Your task to perform on an android device: open app "NewsBreak: Local News & Alerts" Image 0: 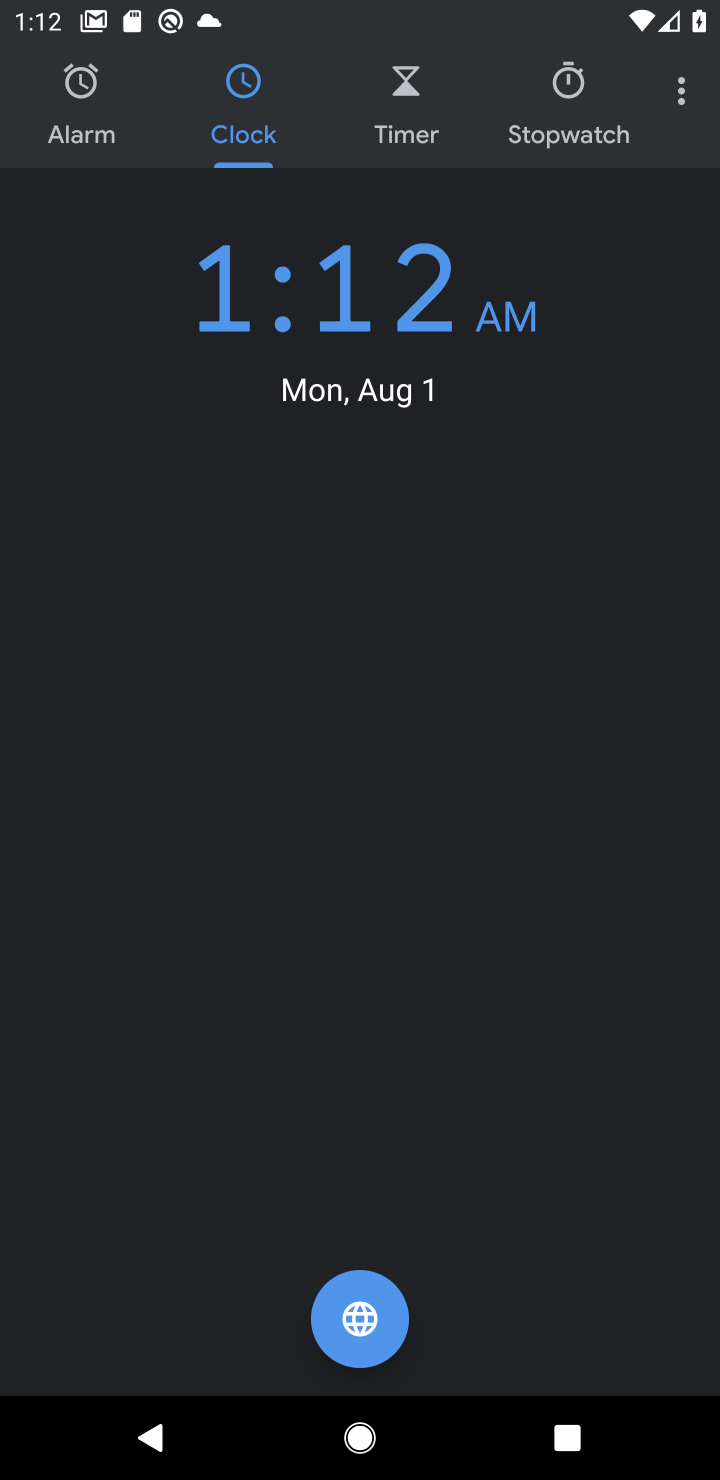
Step 0: press home button
Your task to perform on an android device: open app "NewsBreak: Local News & Alerts" Image 1: 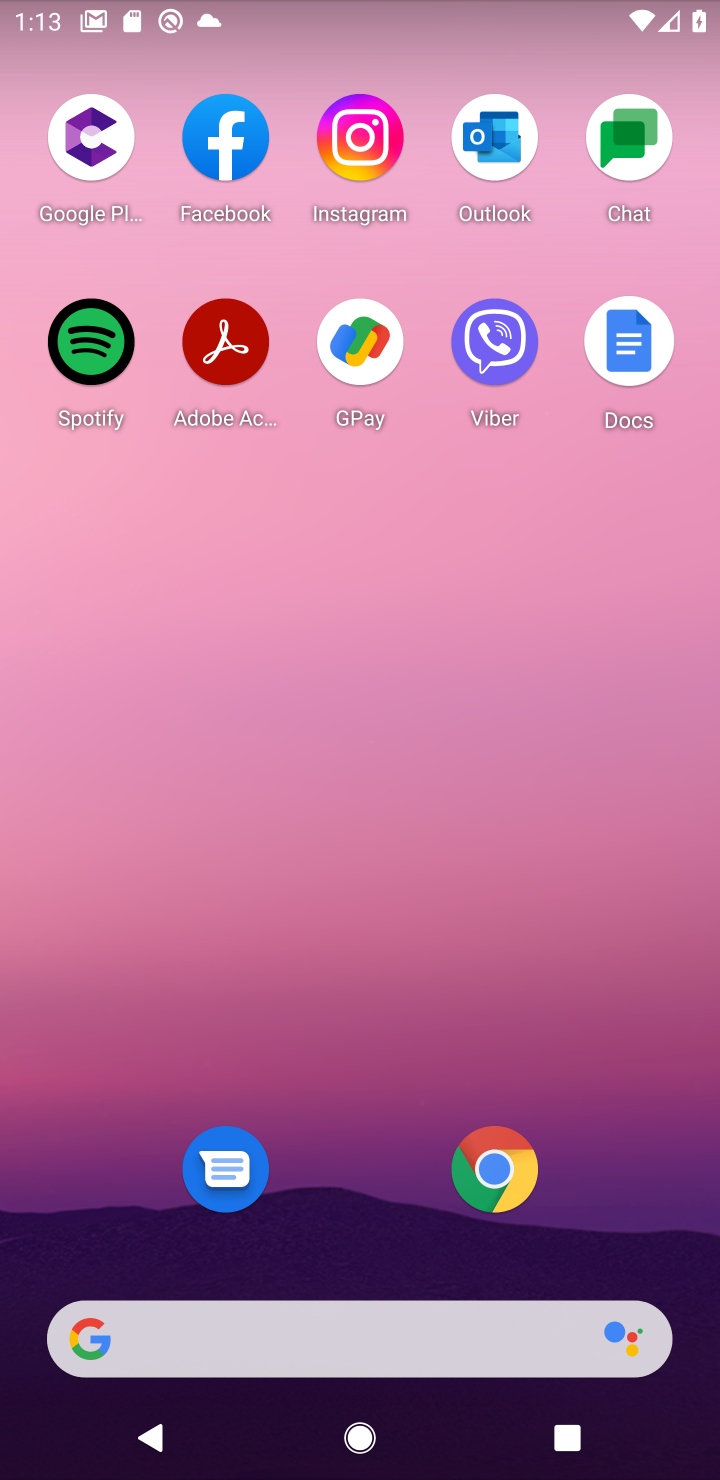
Step 1: drag from (365, 1188) to (514, 224)
Your task to perform on an android device: open app "NewsBreak: Local News & Alerts" Image 2: 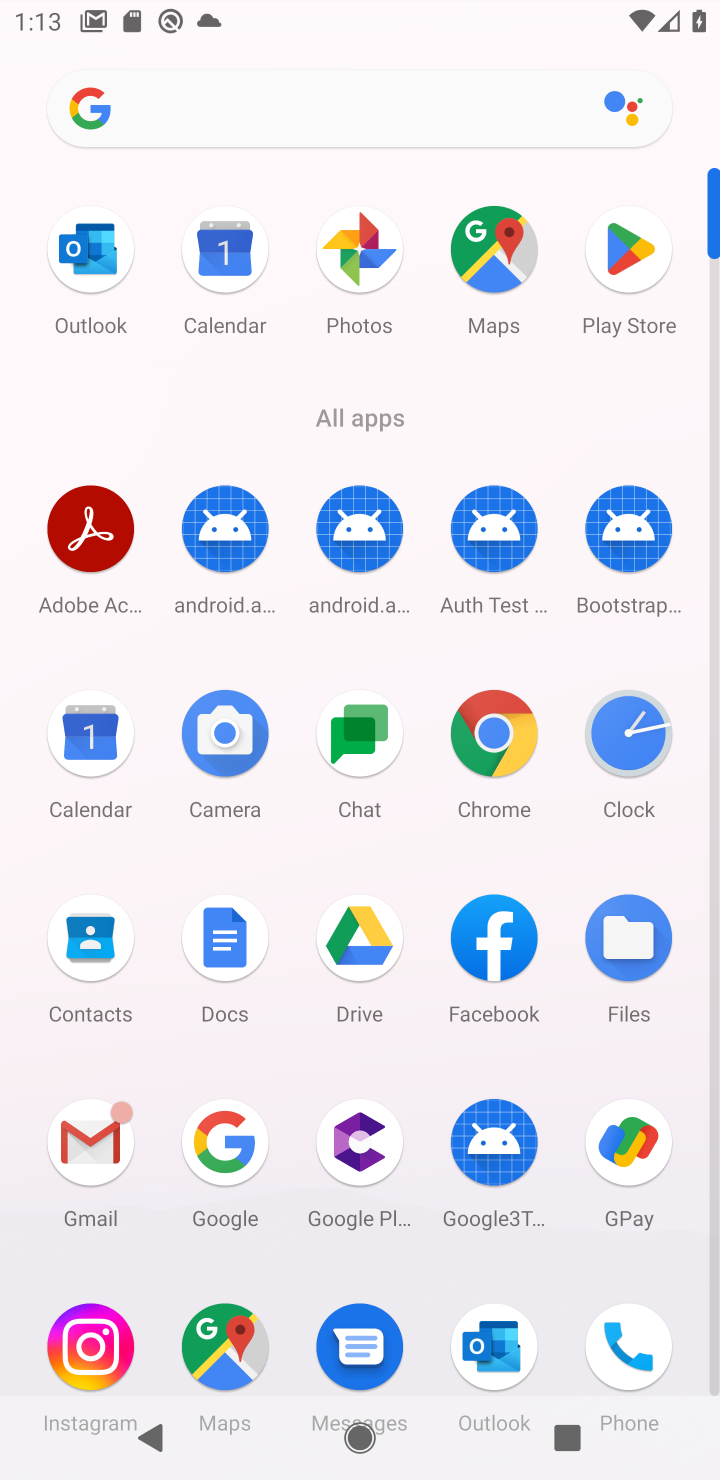
Step 2: click (605, 249)
Your task to perform on an android device: open app "NewsBreak: Local News & Alerts" Image 3: 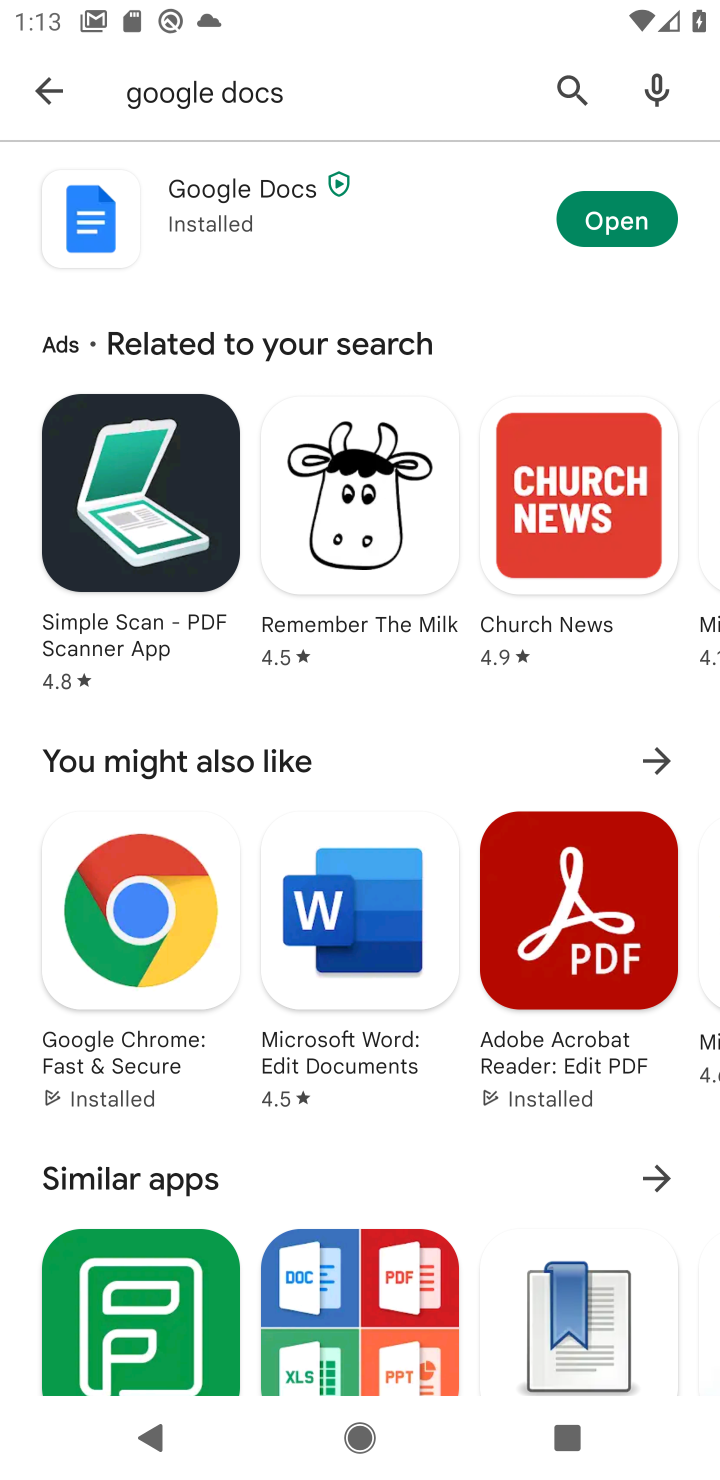
Step 3: click (34, 97)
Your task to perform on an android device: open app "NewsBreak: Local News & Alerts" Image 4: 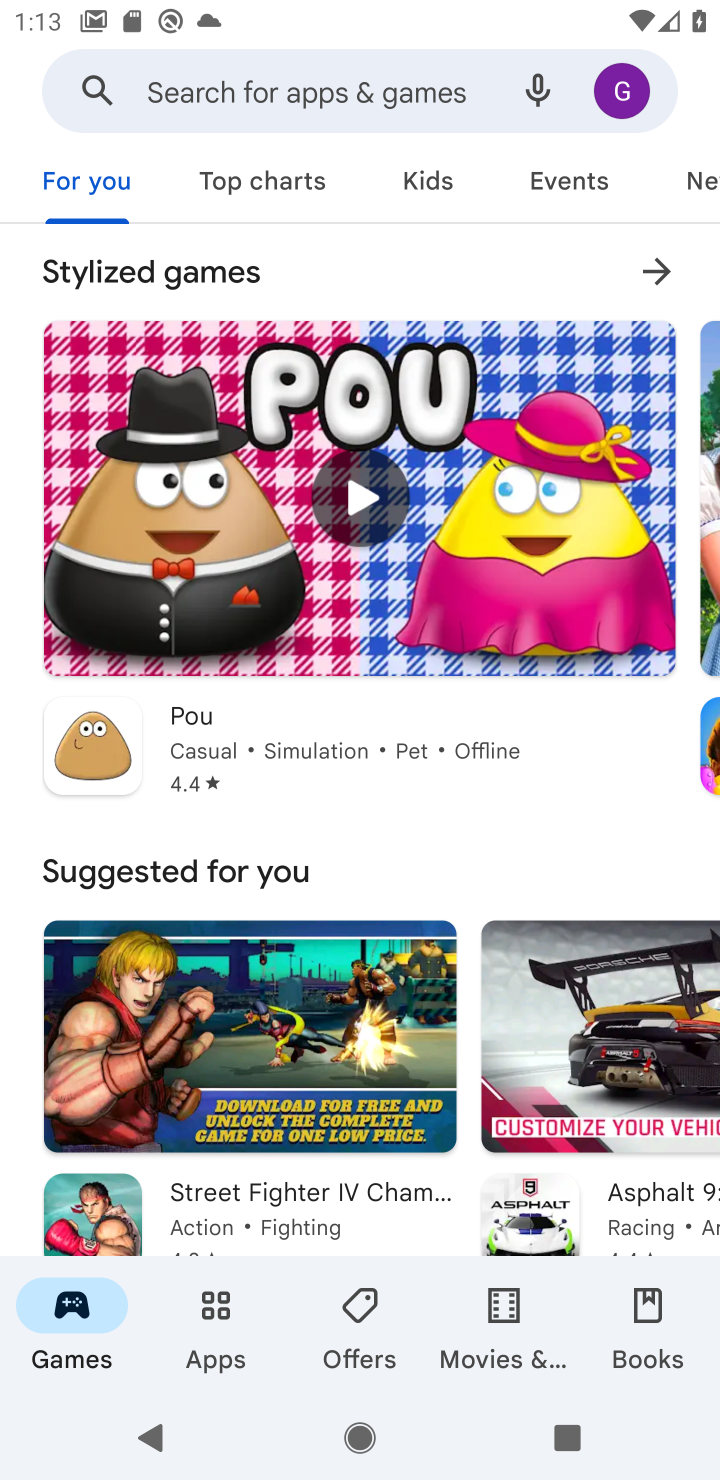
Step 4: click (288, 72)
Your task to perform on an android device: open app "NewsBreak: Local News & Alerts" Image 5: 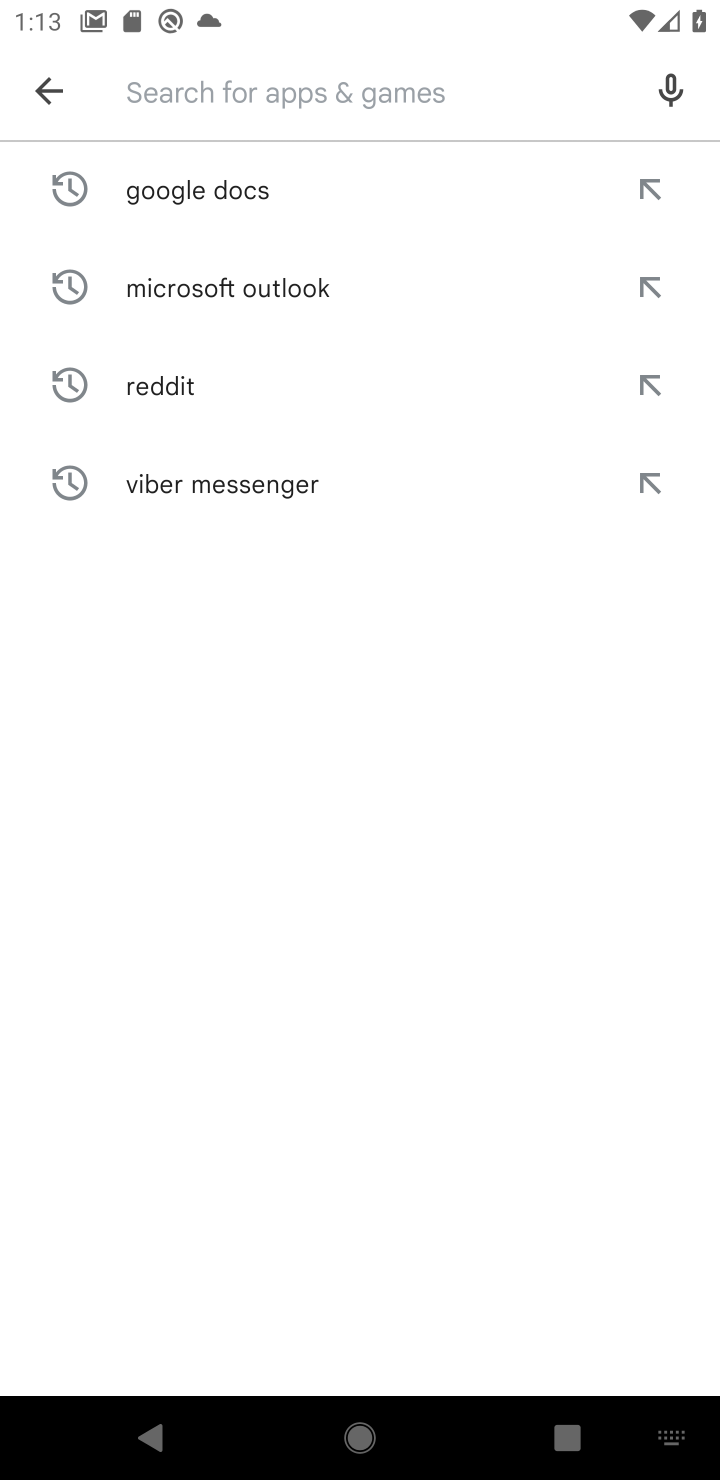
Step 5: type "NewsBreak: Local News & Alerts"
Your task to perform on an android device: open app "NewsBreak: Local News & Alerts" Image 6: 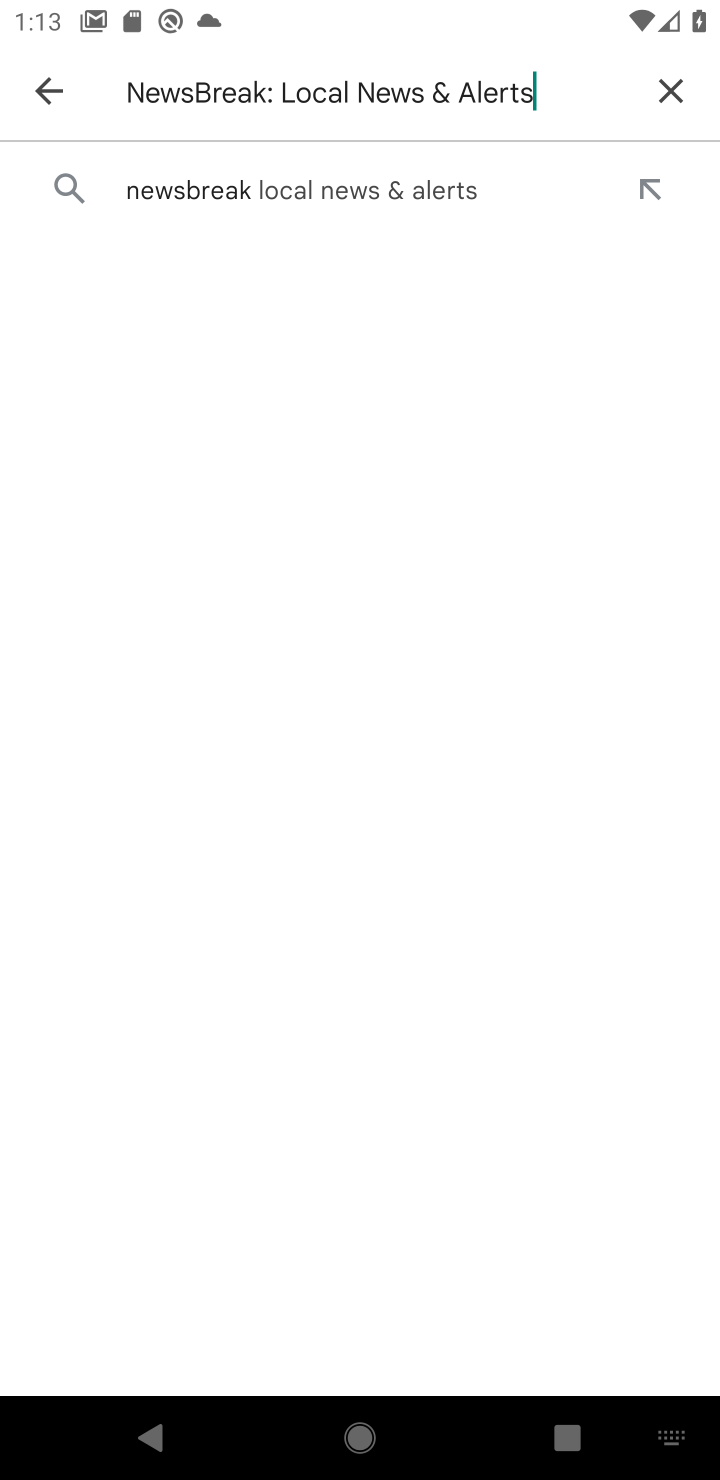
Step 6: click (258, 180)
Your task to perform on an android device: open app "NewsBreak: Local News & Alerts" Image 7: 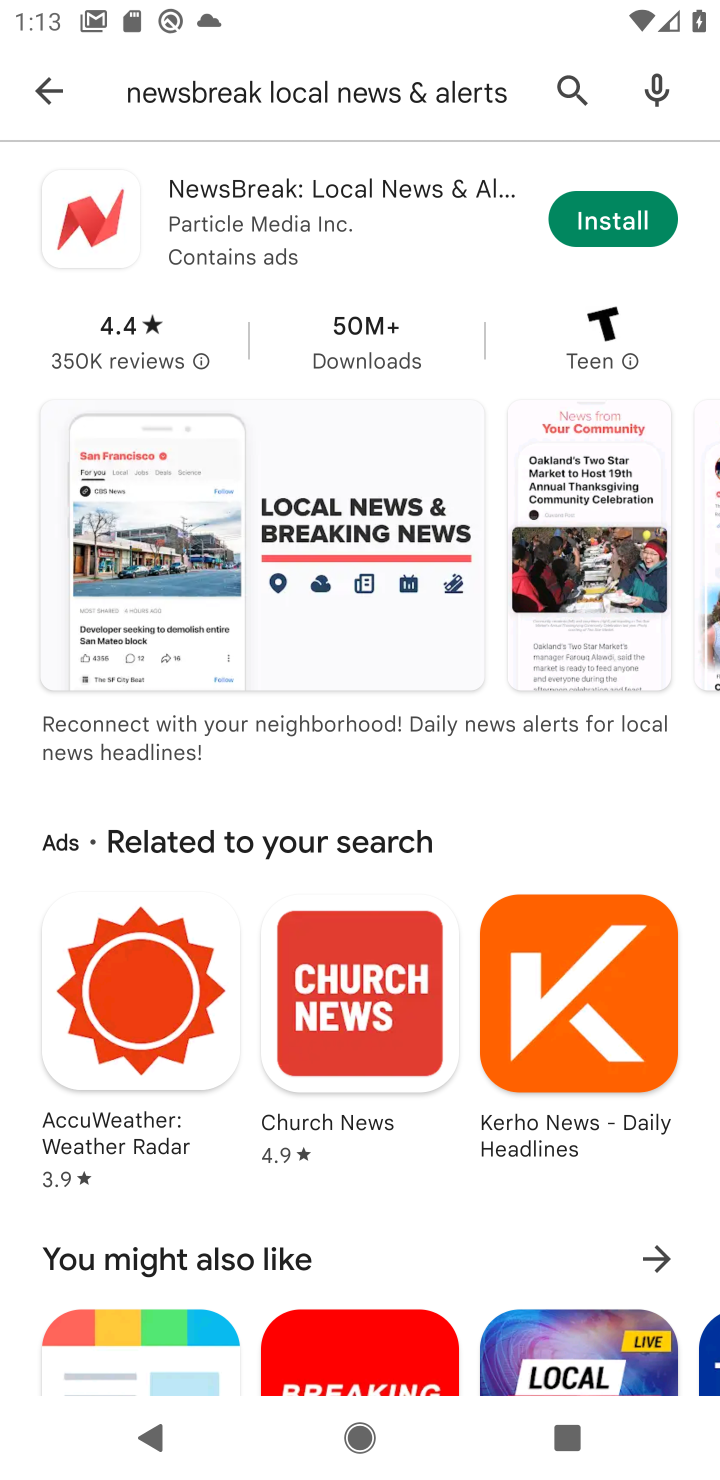
Step 7: click (593, 226)
Your task to perform on an android device: open app "NewsBreak: Local News & Alerts" Image 8: 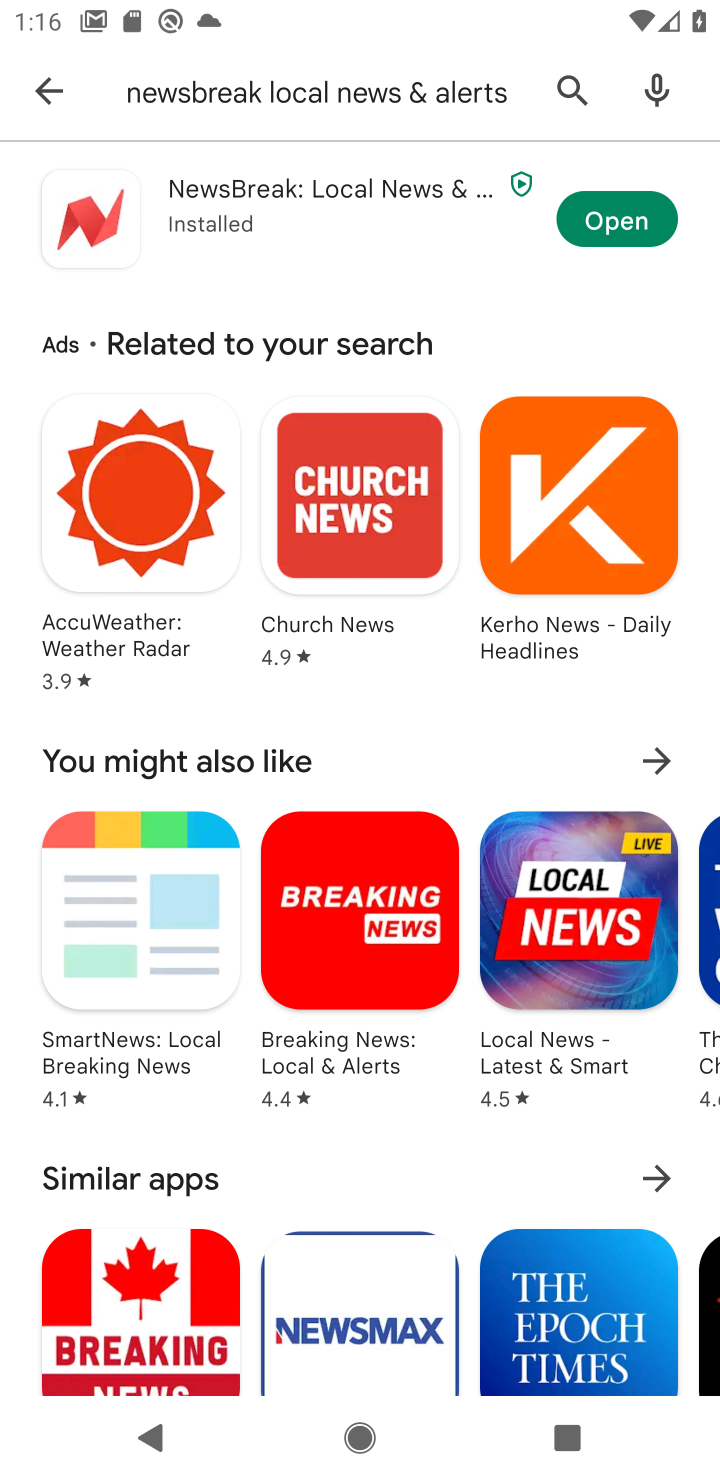
Step 8: click (634, 187)
Your task to perform on an android device: open app "NewsBreak: Local News & Alerts" Image 9: 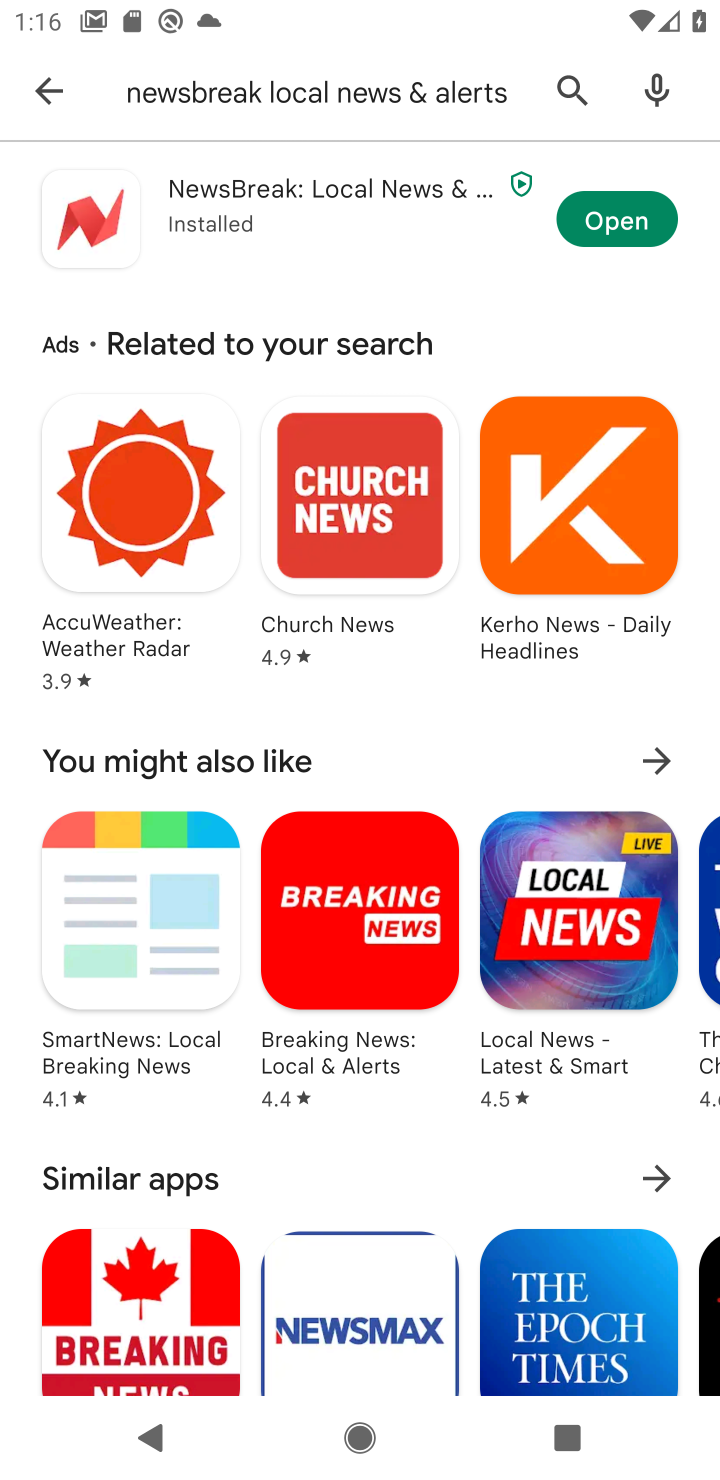
Step 9: task complete